Your task to perform on an android device: all mails in gmail Image 0: 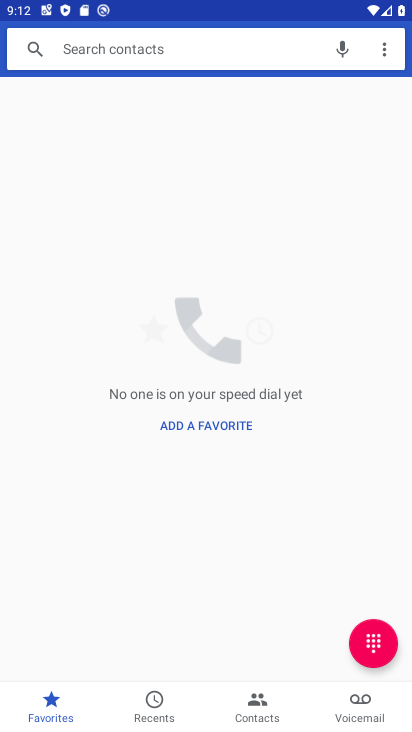
Step 0: press home button
Your task to perform on an android device: all mails in gmail Image 1: 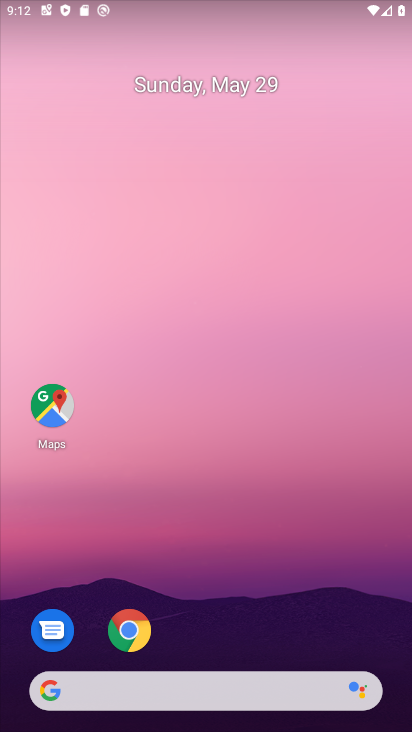
Step 1: drag from (337, 643) to (371, 148)
Your task to perform on an android device: all mails in gmail Image 2: 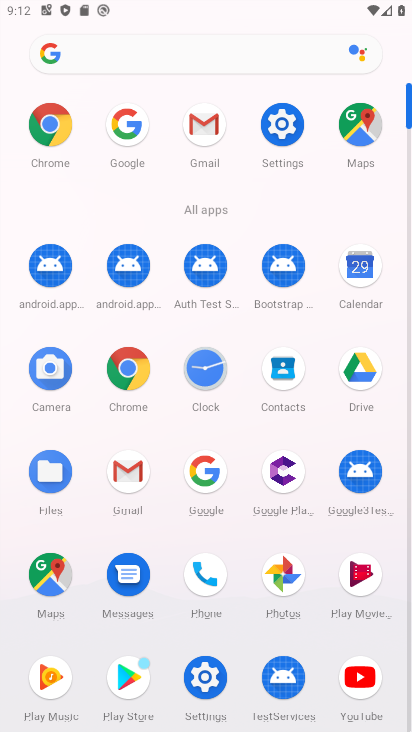
Step 2: click (126, 481)
Your task to perform on an android device: all mails in gmail Image 3: 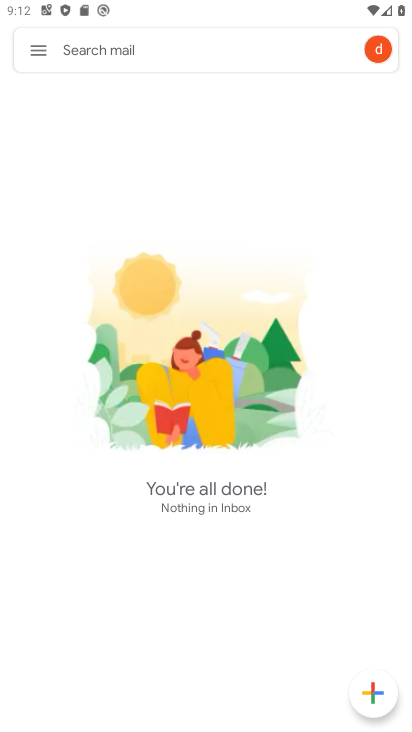
Step 3: click (22, 42)
Your task to perform on an android device: all mails in gmail Image 4: 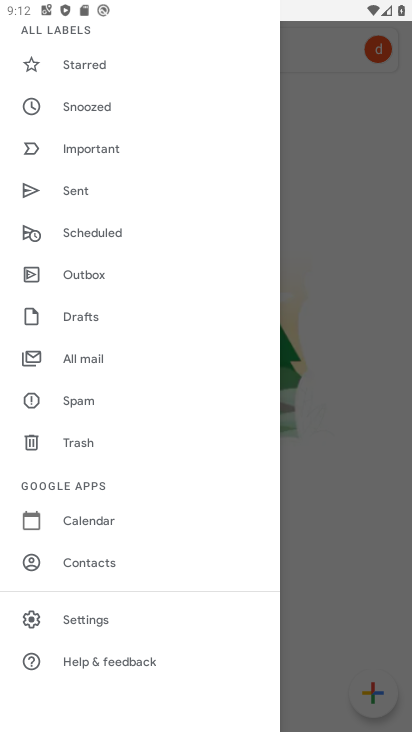
Step 4: click (69, 366)
Your task to perform on an android device: all mails in gmail Image 5: 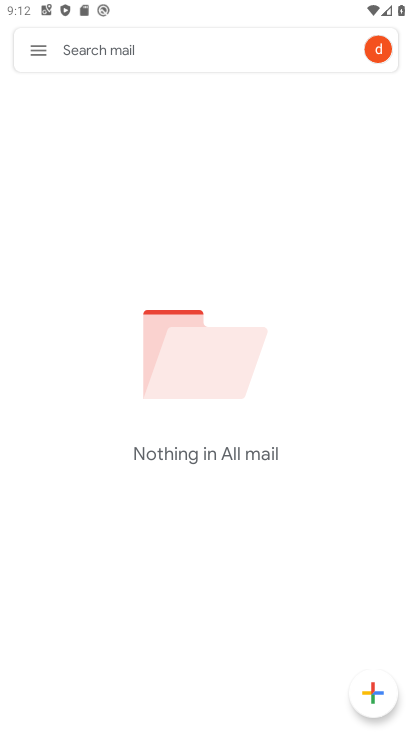
Step 5: task complete